Your task to perform on an android device: Show the shopping cart on walmart. Add "razer thresher" to the cart on walmart, then select checkout. Image 0: 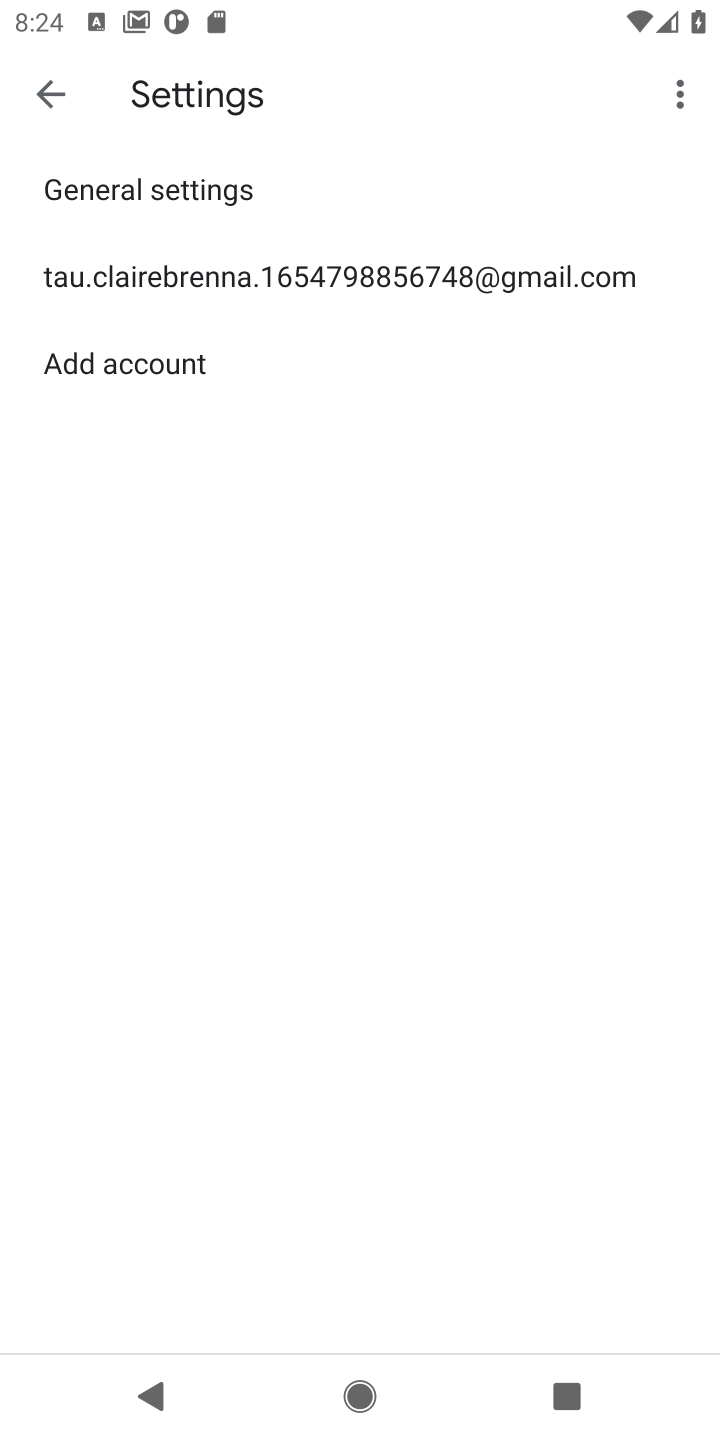
Step 0: press home button
Your task to perform on an android device: Show the shopping cart on walmart. Add "razer thresher" to the cart on walmart, then select checkout. Image 1: 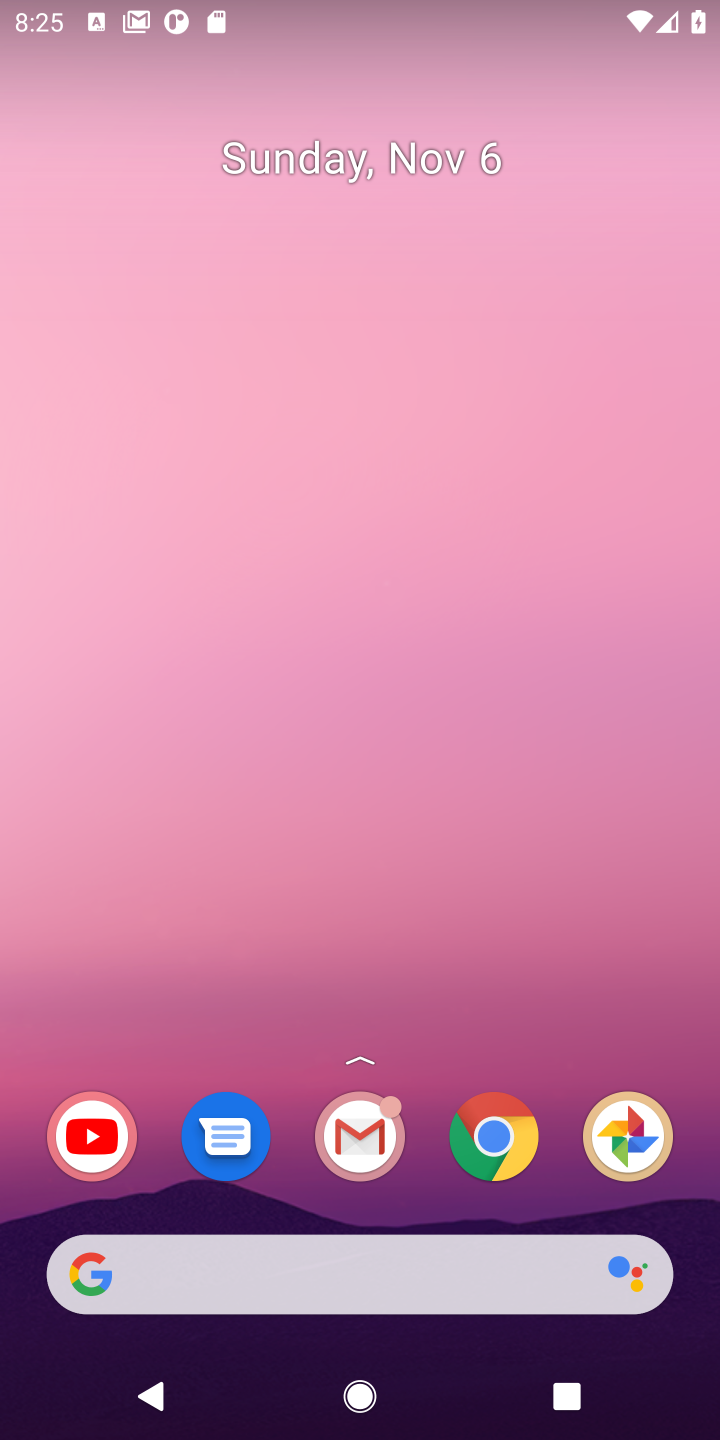
Step 1: click (312, 1263)
Your task to perform on an android device: Show the shopping cart on walmart. Add "razer thresher" to the cart on walmart, then select checkout. Image 2: 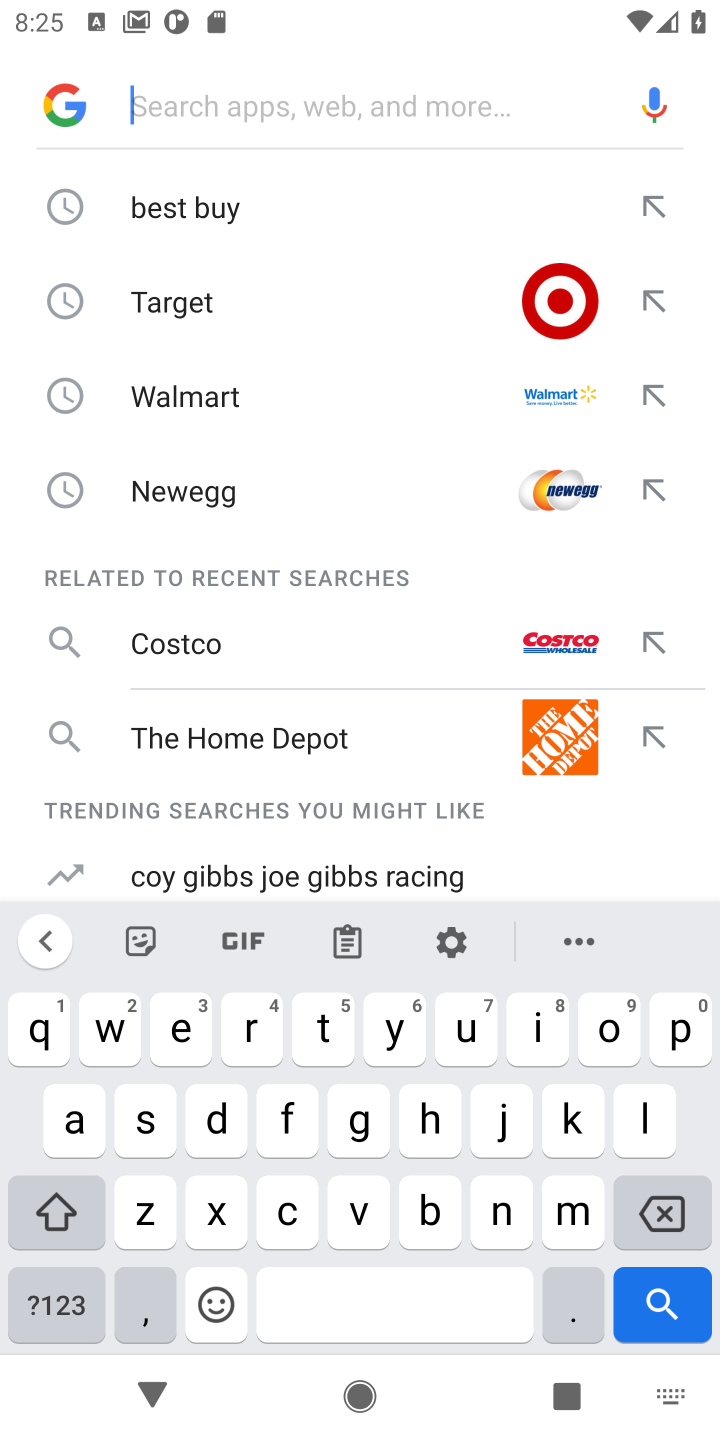
Step 2: click (240, 395)
Your task to perform on an android device: Show the shopping cart on walmart. Add "razer thresher" to the cart on walmart, then select checkout. Image 3: 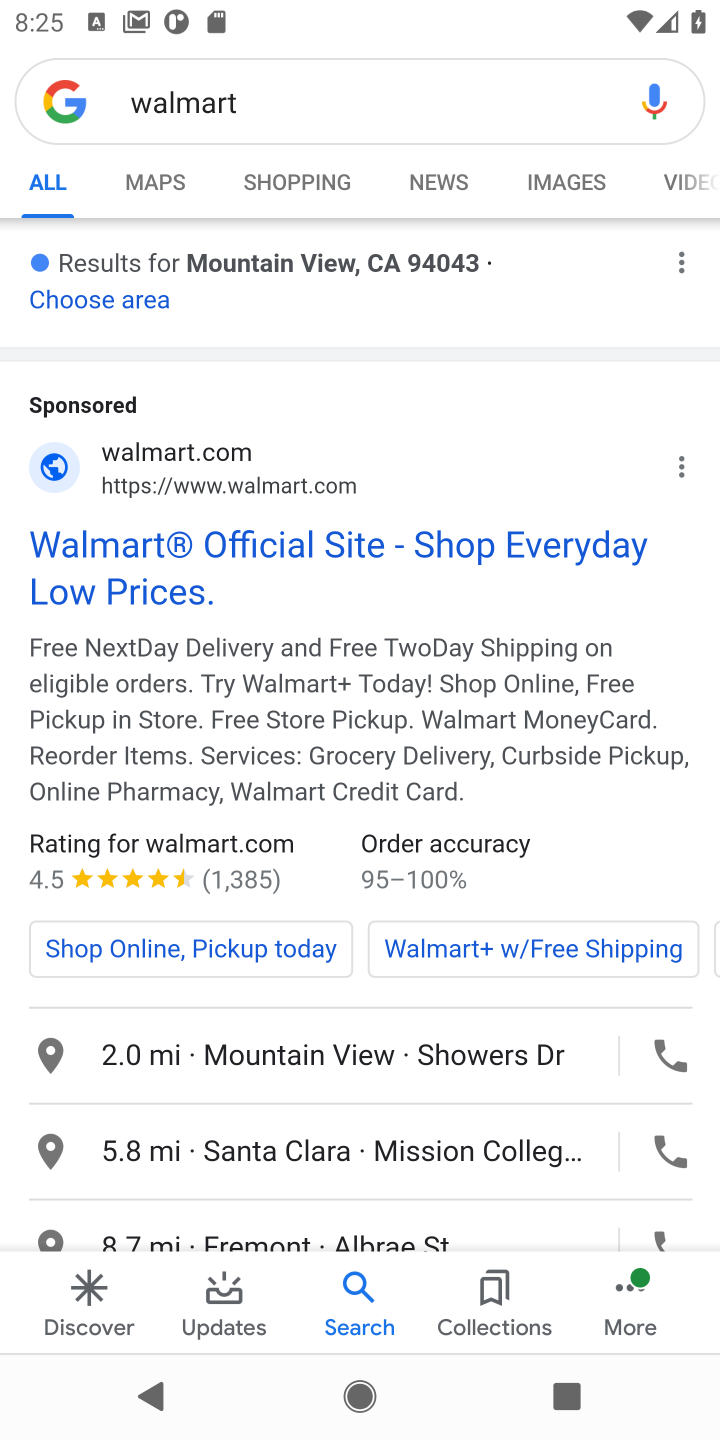
Step 3: click (120, 540)
Your task to perform on an android device: Show the shopping cart on walmart. Add "razer thresher" to the cart on walmart, then select checkout. Image 4: 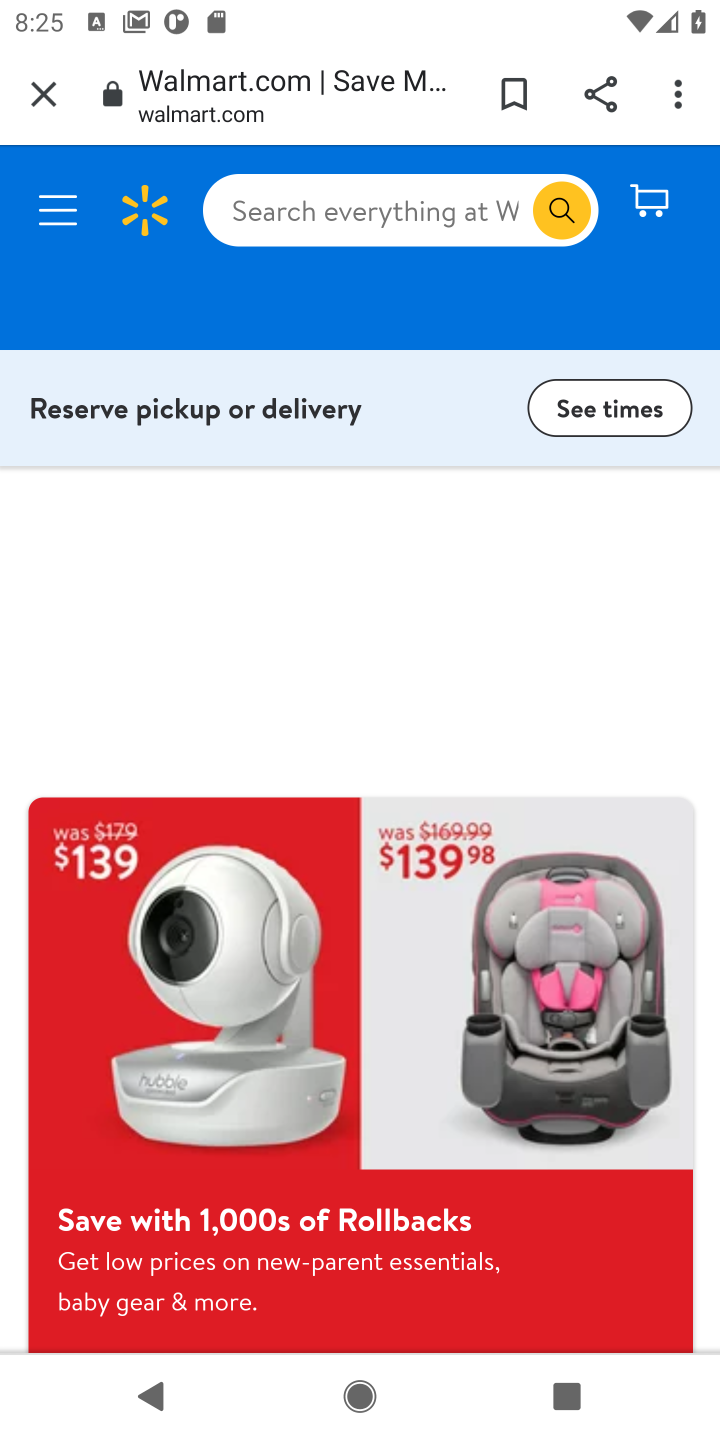
Step 4: task complete